Your task to perform on an android device: Open internet settings Image 0: 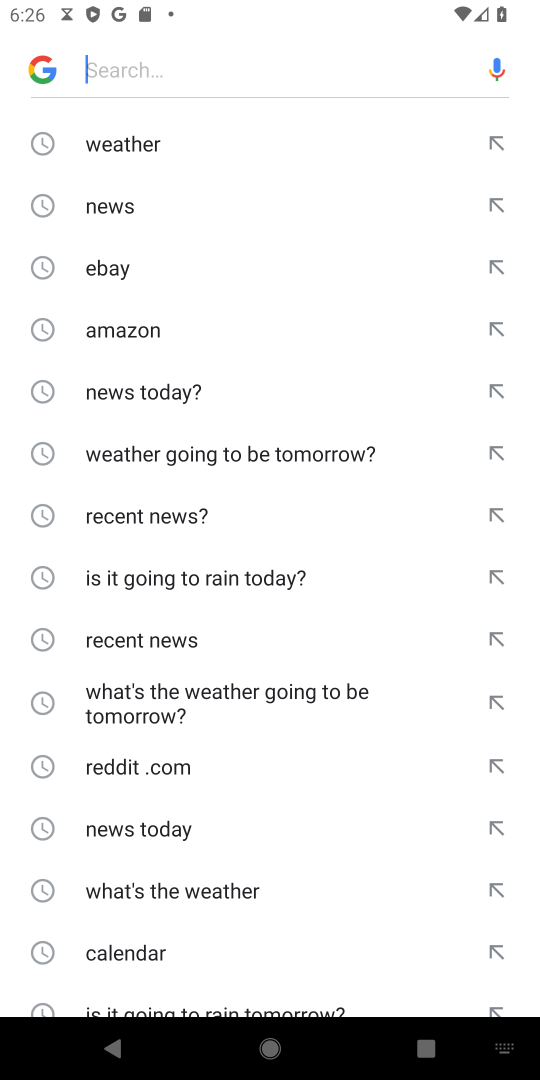
Step 0: press home button
Your task to perform on an android device: Open internet settings Image 1: 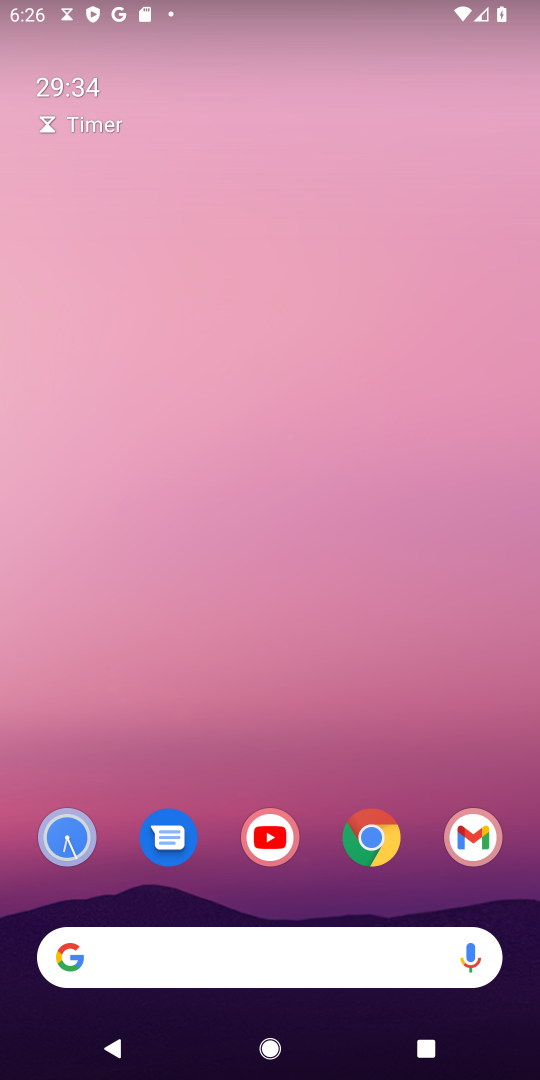
Step 1: drag from (325, 888) to (277, 112)
Your task to perform on an android device: Open internet settings Image 2: 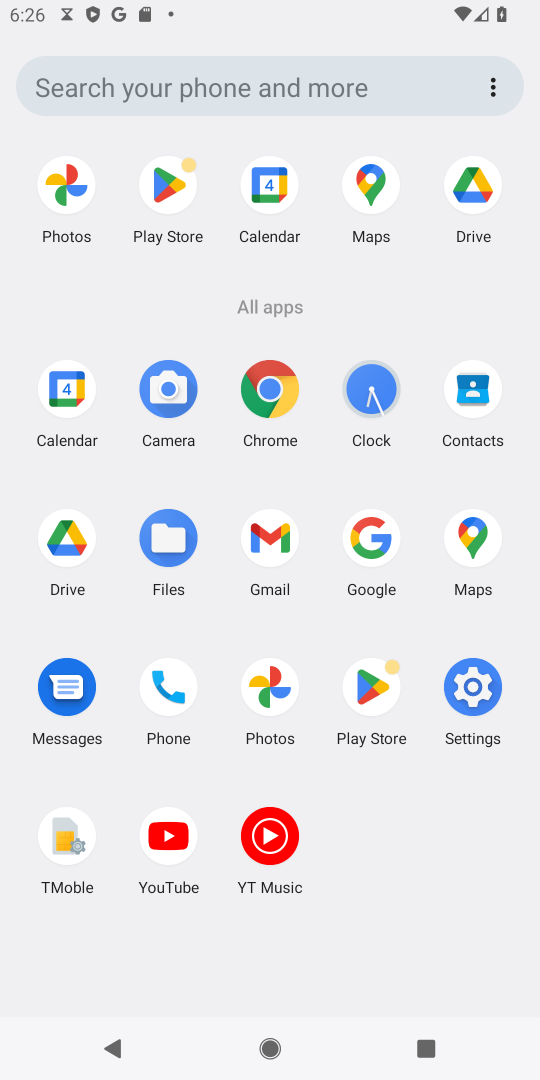
Step 2: click (470, 685)
Your task to perform on an android device: Open internet settings Image 3: 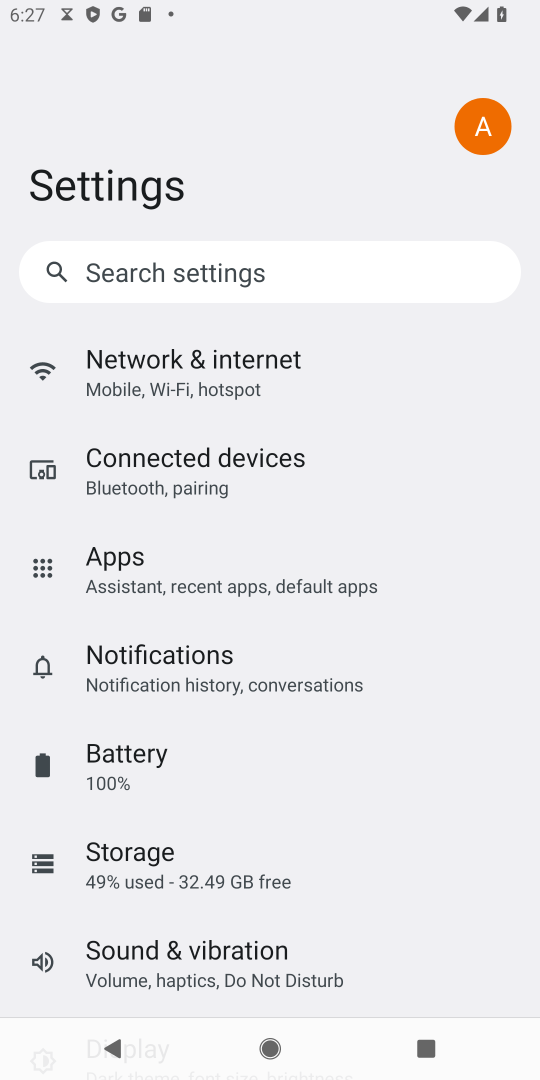
Step 3: click (191, 382)
Your task to perform on an android device: Open internet settings Image 4: 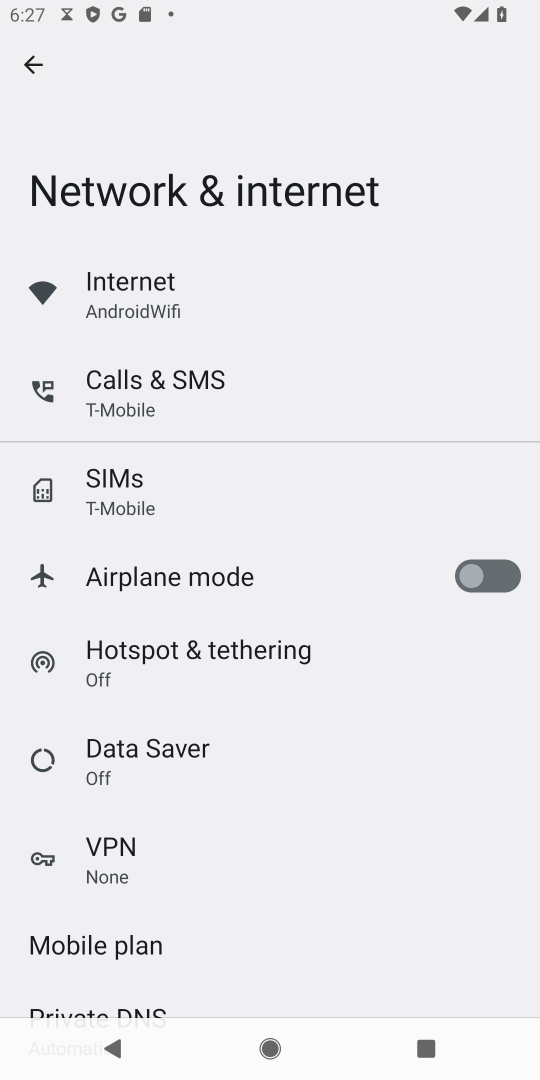
Step 4: click (205, 278)
Your task to perform on an android device: Open internet settings Image 5: 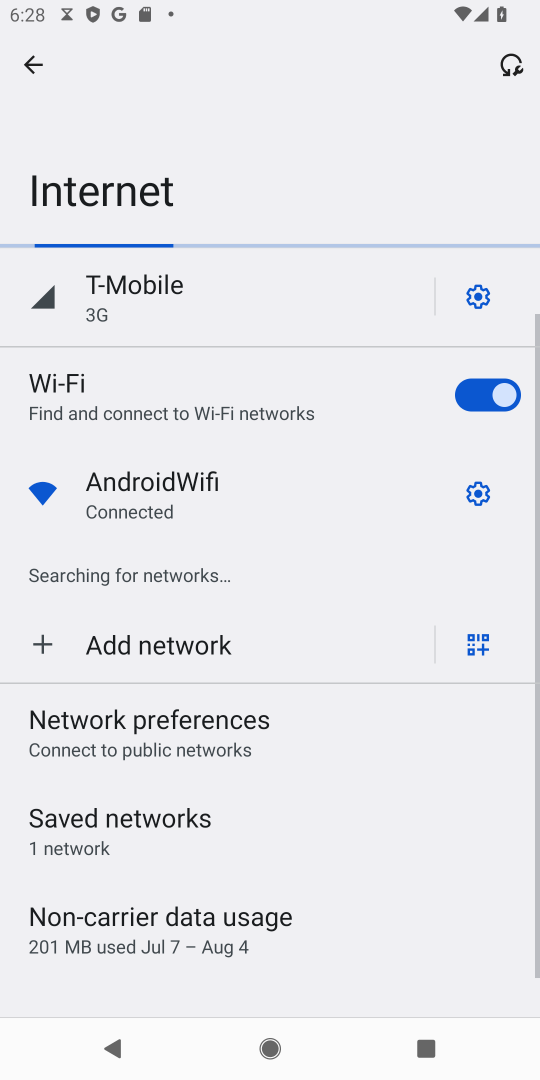
Step 5: task complete